Your task to perform on an android device: check battery use Image 0: 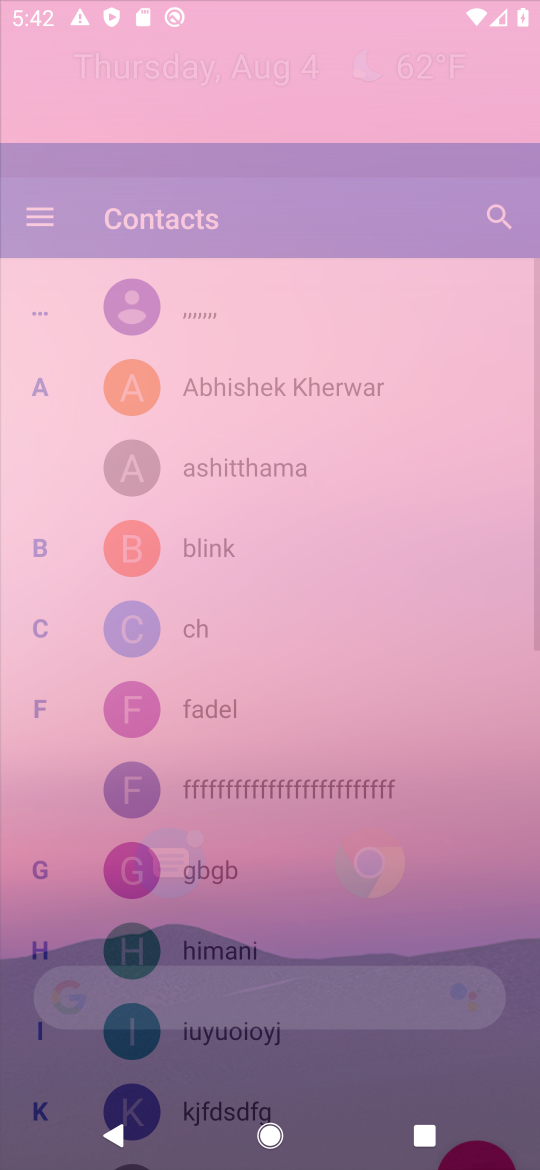
Step 0: press home button
Your task to perform on an android device: check battery use Image 1: 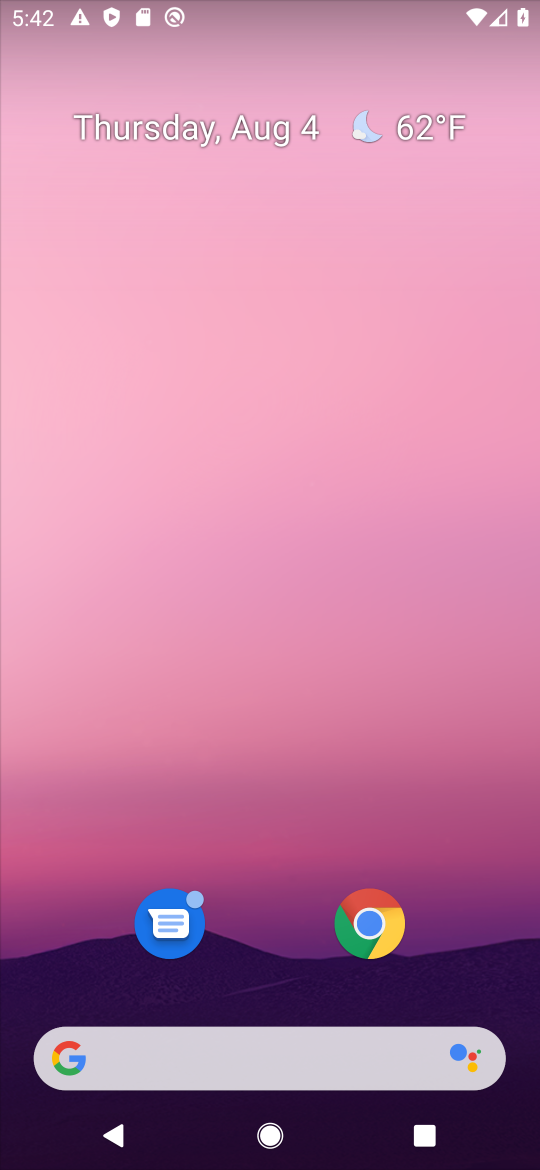
Step 1: drag from (454, 917) to (328, 366)
Your task to perform on an android device: check battery use Image 2: 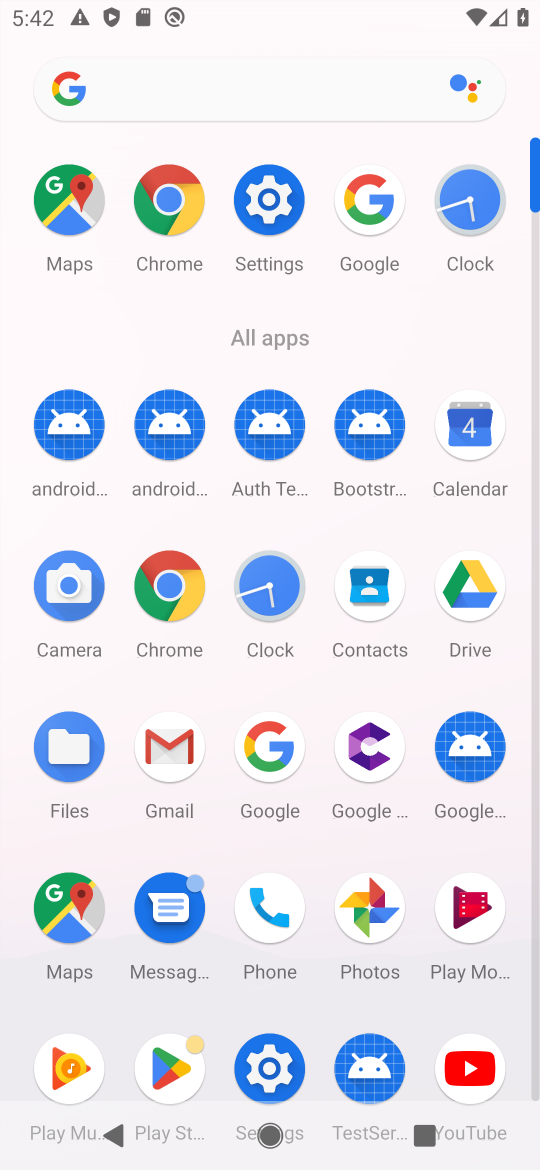
Step 2: click (293, 1066)
Your task to perform on an android device: check battery use Image 3: 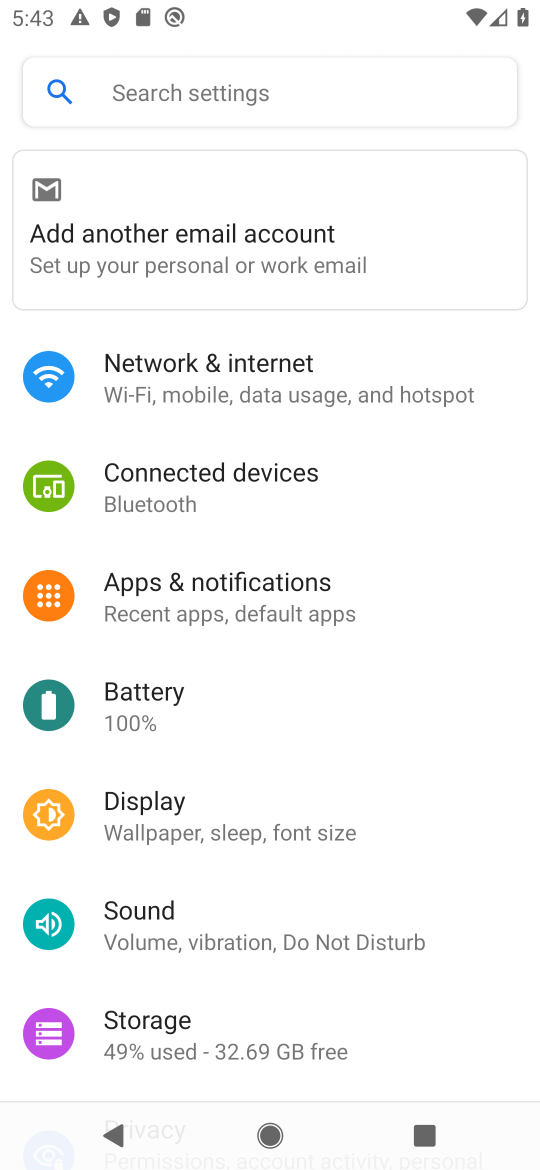
Step 3: click (131, 715)
Your task to perform on an android device: check battery use Image 4: 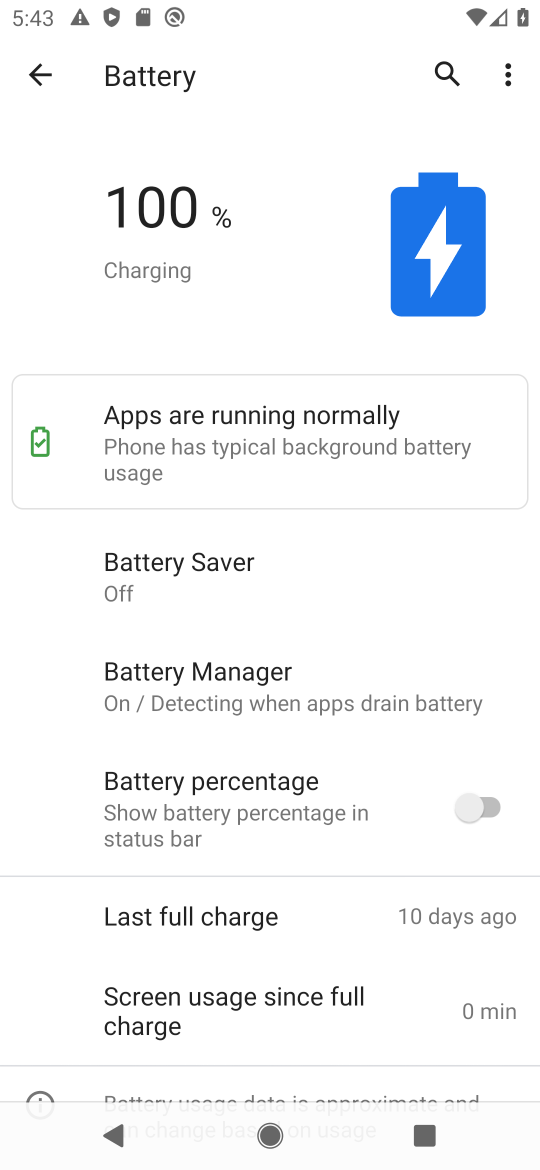
Step 4: drag from (315, 918) to (244, 599)
Your task to perform on an android device: check battery use Image 5: 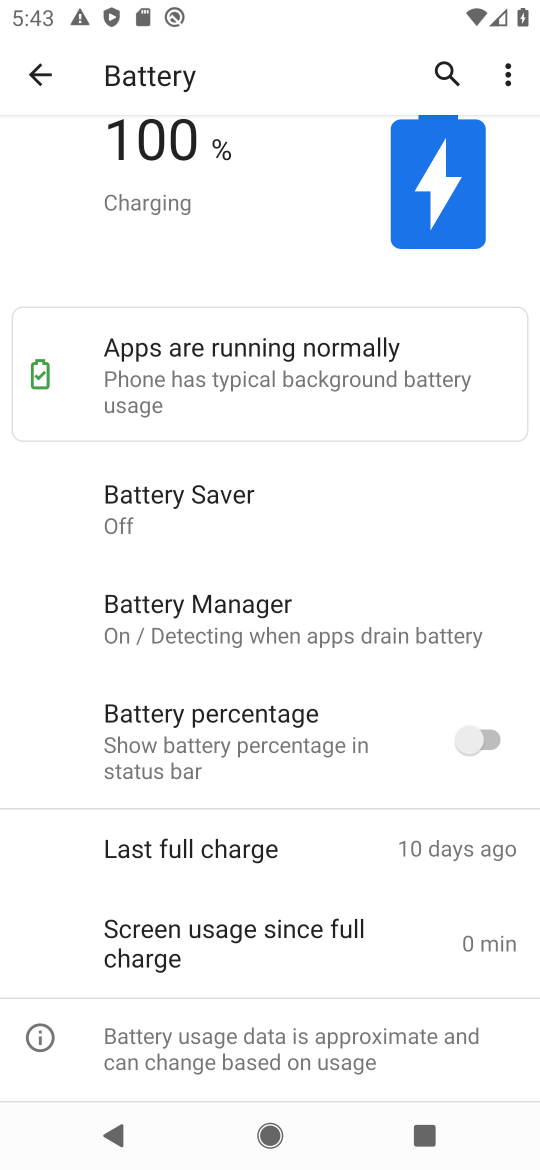
Step 5: click (511, 74)
Your task to perform on an android device: check battery use Image 6: 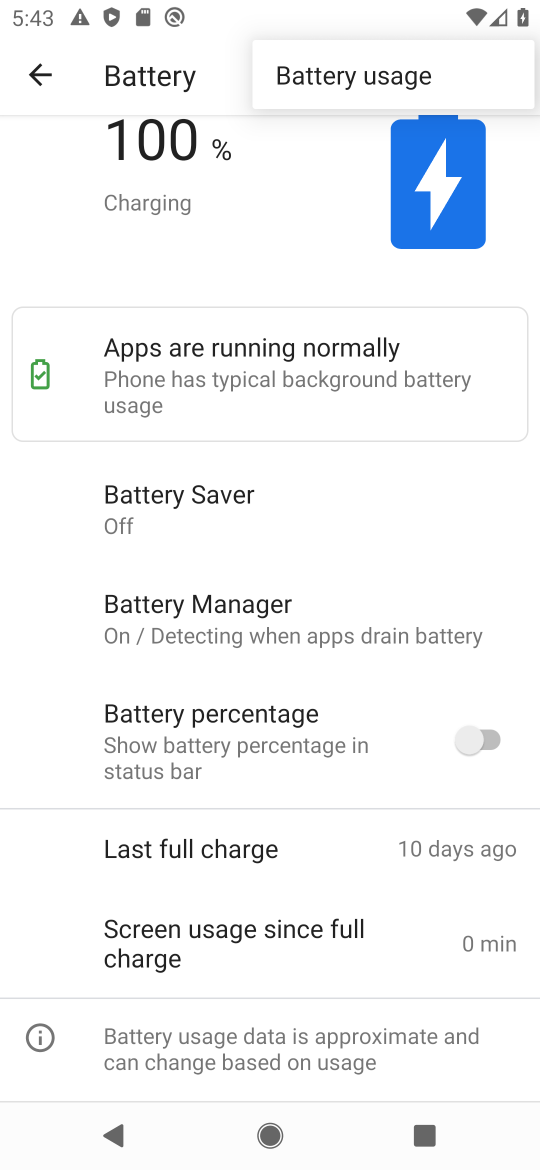
Step 6: click (381, 85)
Your task to perform on an android device: check battery use Image 7: 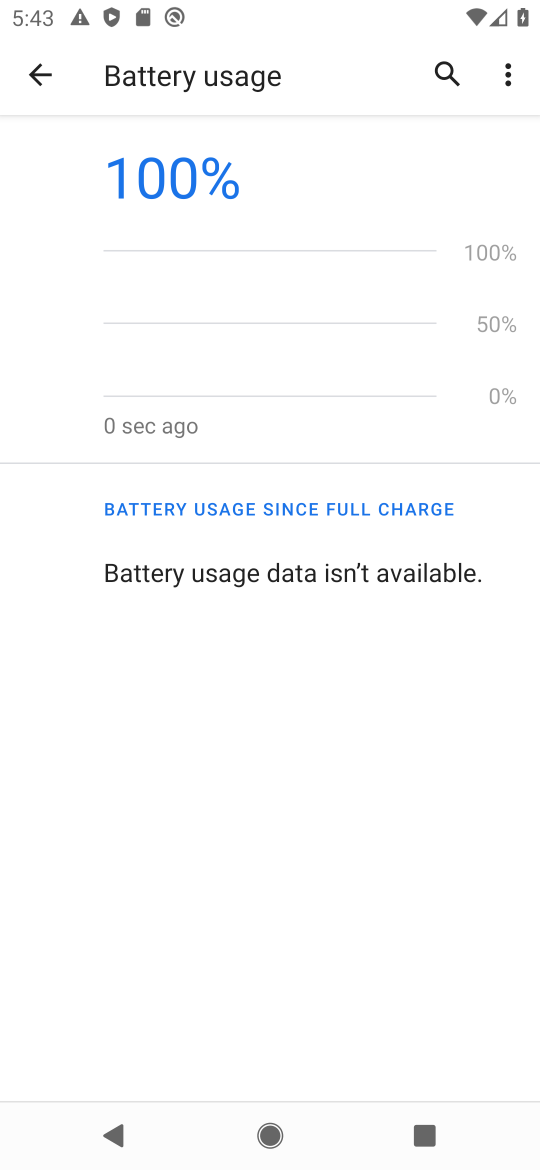
Step 7: task complete